Your task to perform on an android device: see creations saved in the google photos Image 0: 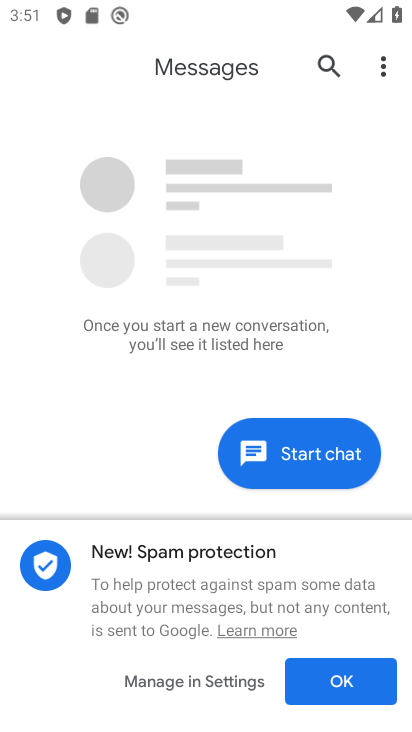
Step 0: press home button
Your task to perform on an android device: see creations saved in the google photos Image 1: 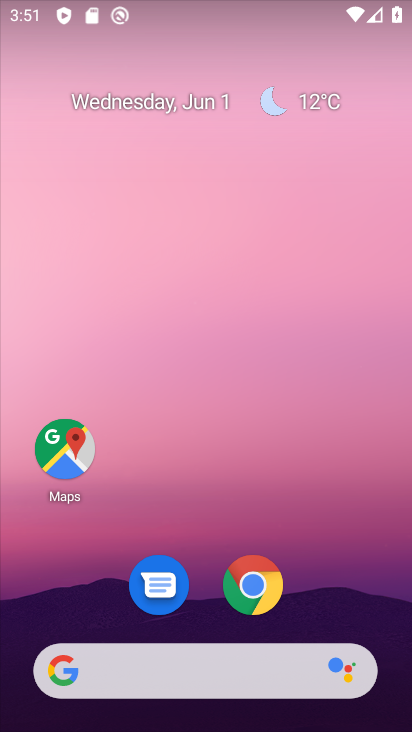
Step 1: drag from (220, 393) to (222, 16)
Your task to perform on an android device: see creations saved in the google photos Image 2: 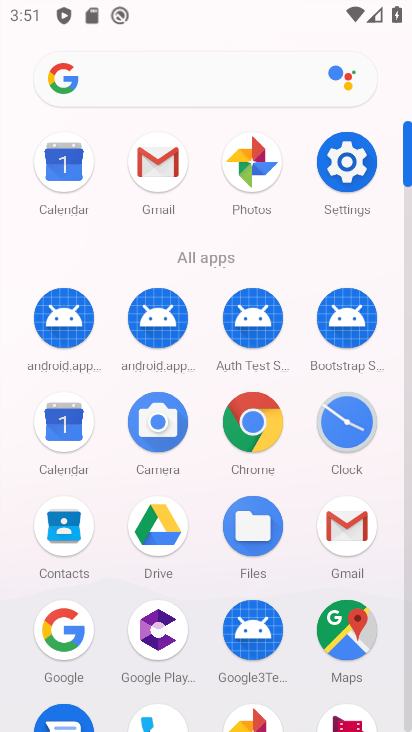
Step 2: click (258, 168)
Your task to perform on an android device: see creations saved in the google photos Image 3: 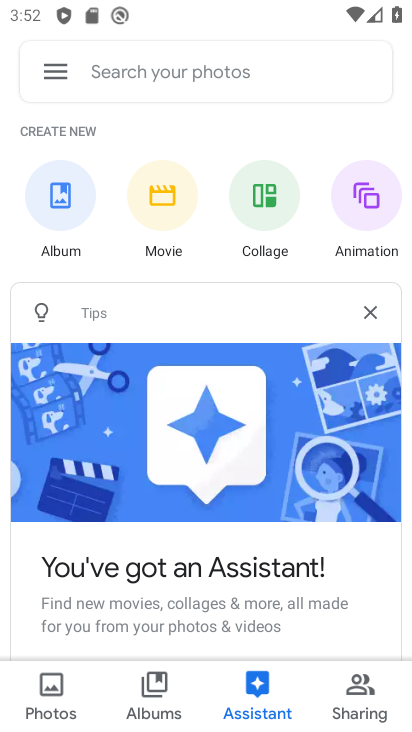
Step 3: click (193, 66)
Your task to perform on an android device: see creations saved in the google photos Image 4: 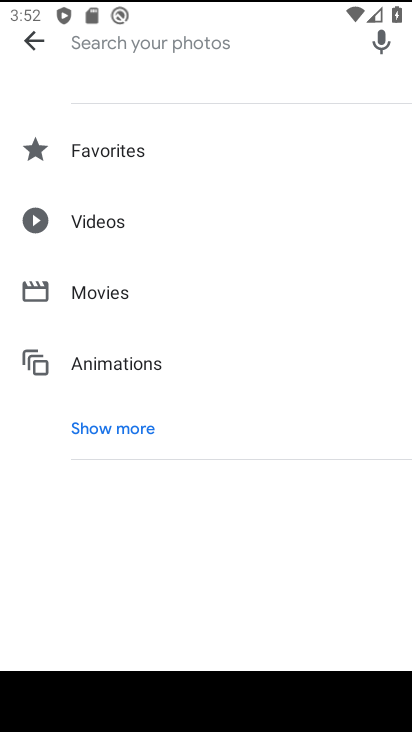
Step 4: click (120, 416)
Your task to perform on an android device: see creations saved in the google photos Image 5: 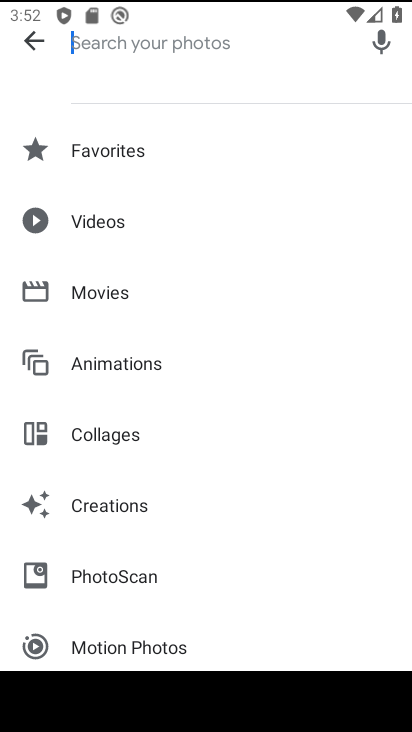
Step 5: click (108, 507)
Your task to perform on an android device: see creations saved in the google photos Image 6: 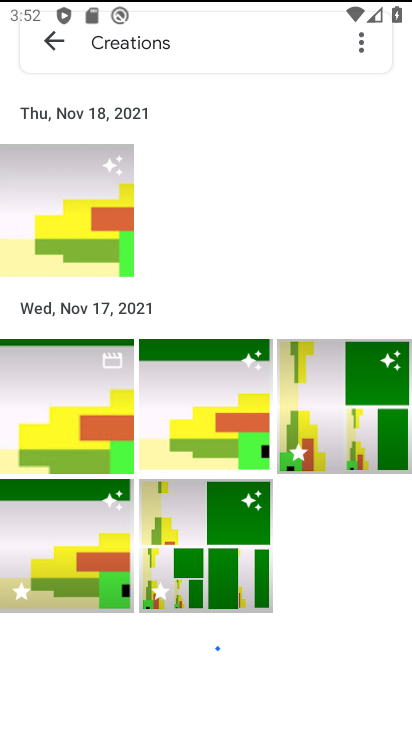
Step 6: task complete